Your task to perform on an android device: Go to CNN.com Image 0: 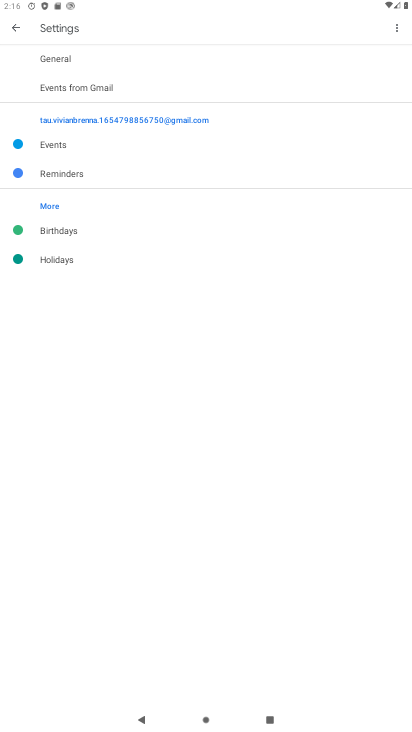
Step 0: press home button
Your task to perform on an android device: Go to CNN.com Image 1: 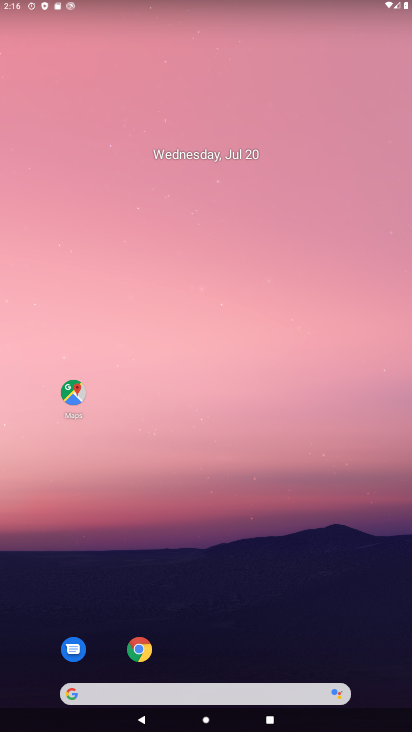
Step 1: click (158, 696)
Your task to perform on an android device: Go to CNN.com Image 2: 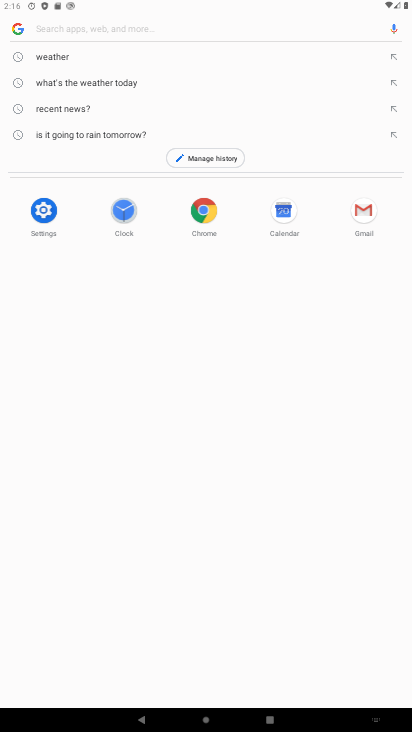
Step 2: click (47, 25)
Your task to perform on an android device: Go to CNN.com Image 3: 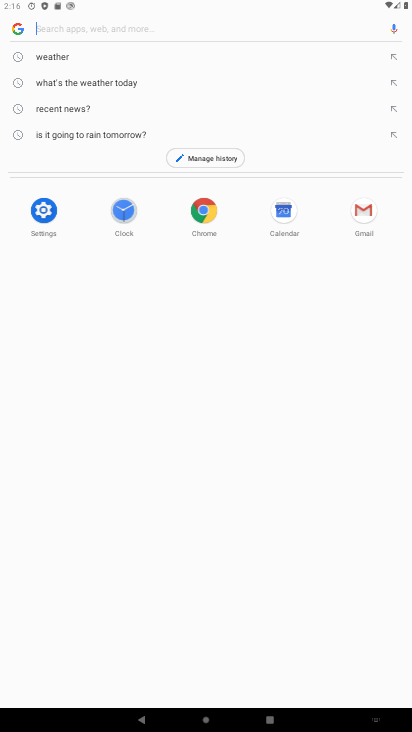
Step 3: type " CNN.com"
Your task to perform on an android device: Go to CNN.com Image 4: 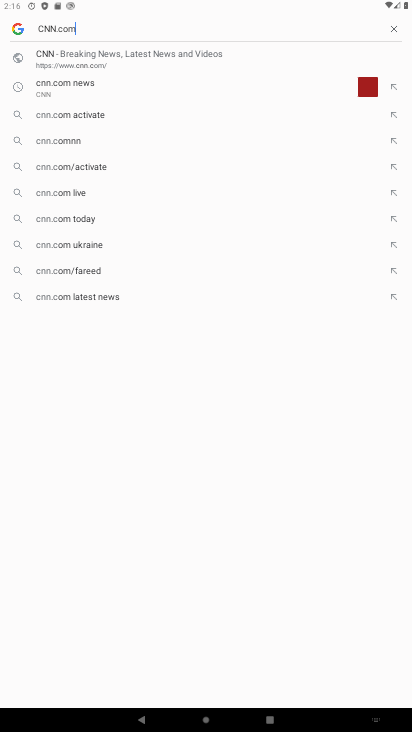
Step 4: press enter
Your task to perform on an android device: Go to CNN.com Image 5: 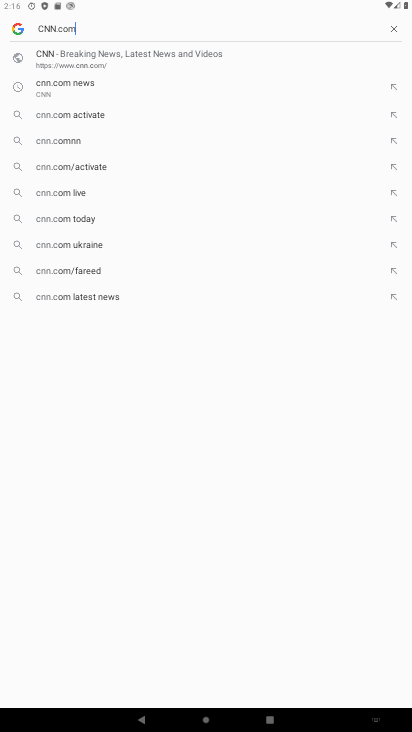
Step 5: type ""
Your task to perform on an android device: Go to CNN.com Image 6: 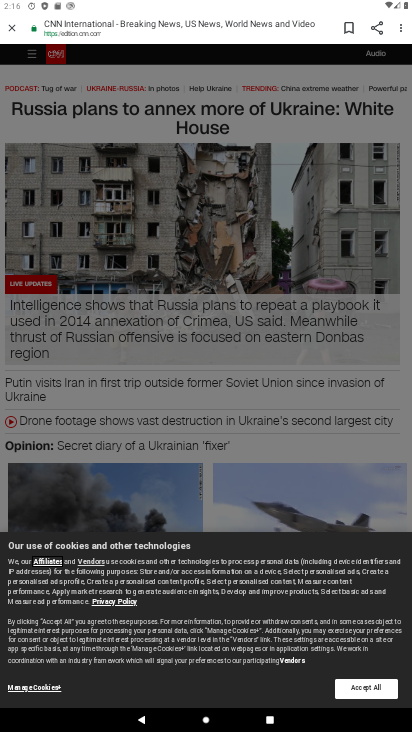
Step 6: task complete